Your task to perform on an android device: check android version Image 0: 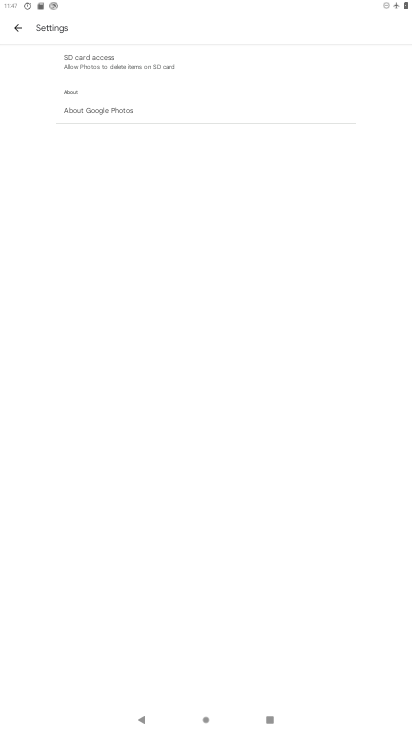
Step 0: press back button
Your task to perform on an android device: check android version Image 1: 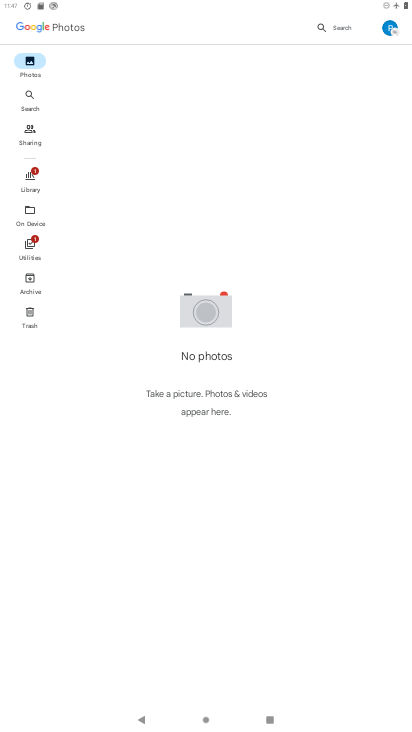
Step 1: press home button
Your task to perform on an android device: check android version Image 2: 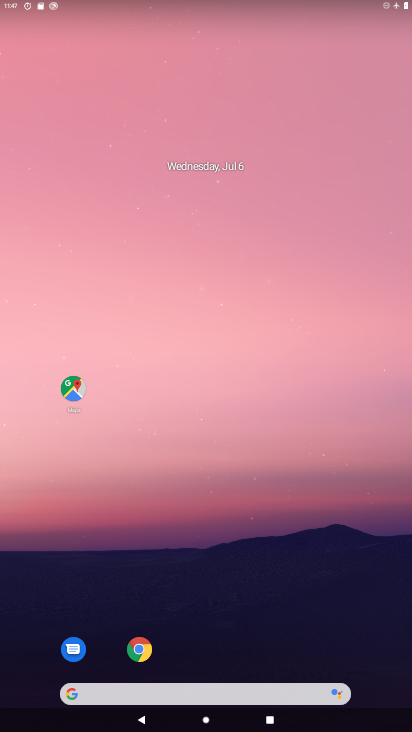
Step 2: drag from (388, 715) to (298, 191)
Your task to perform on an android device: check android version Image 3: 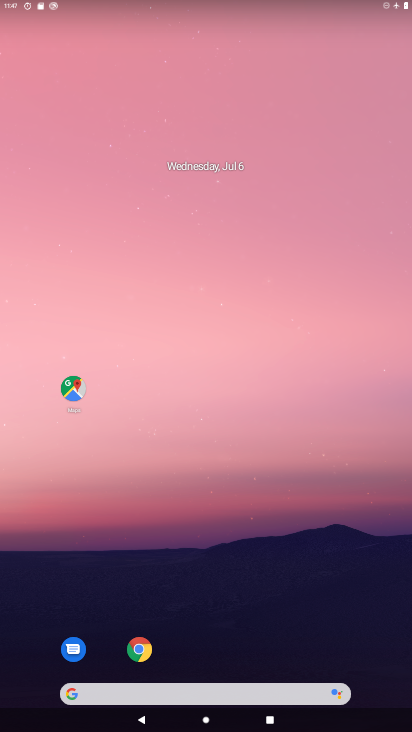
Step 3: drag from (381, 602) to (312, 157)
Your task to perform on an android device: check android version Image 4: 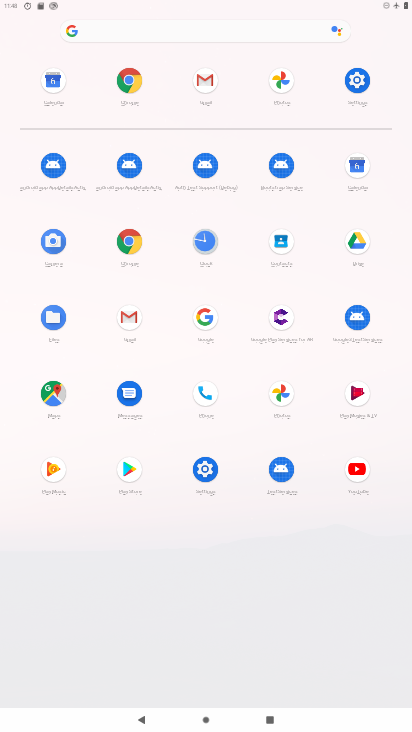
Step 4: click (343, 77)
Your task to perform on an android device: check android version Image 5: 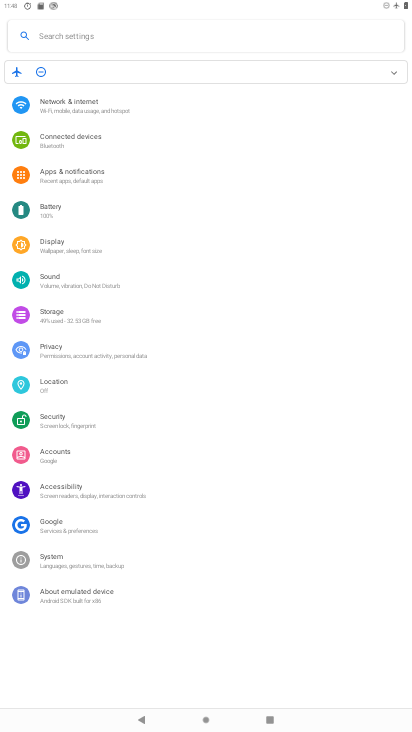
Step 5: click (35, 594)
Your task to perform on an android device: check android version Image 6: 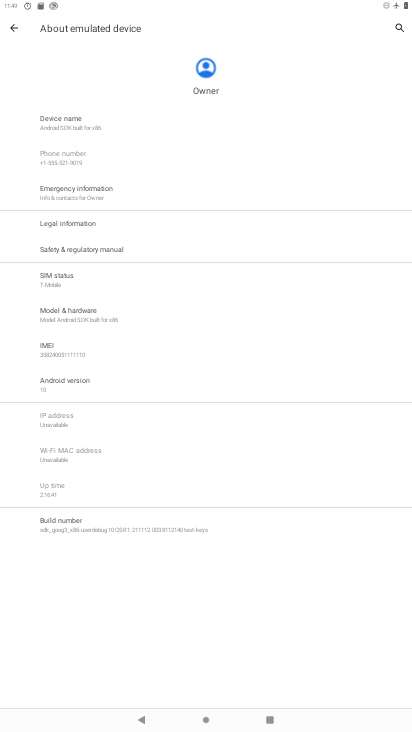
Step 6: task complete